Your task to perform on an android device: Go to network settings Image 0: 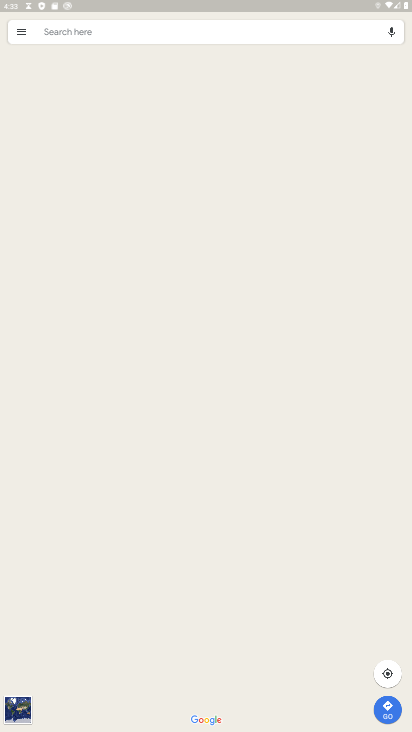
Step 0: press back button
Your task to perform on an android device: Go to network settings Image 1: 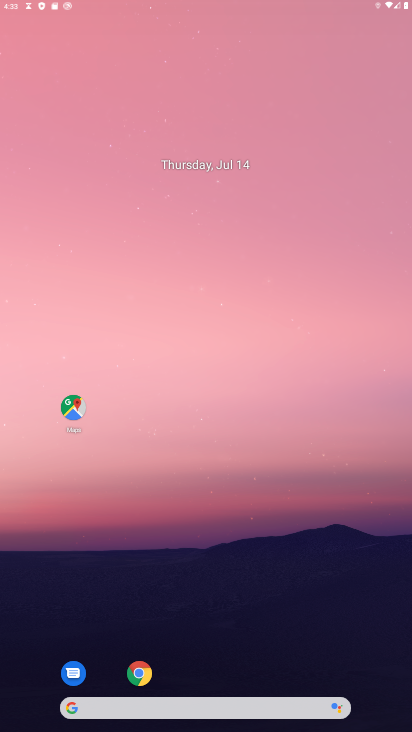
Step 1: press back button
Your task to perform on an android device: Go to network settings Image 2: 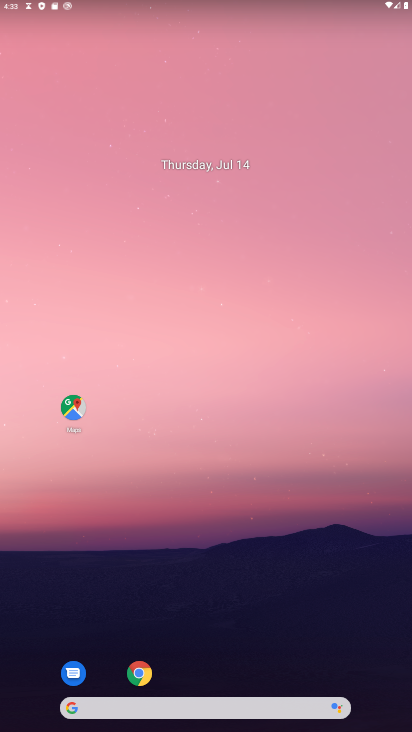
Step 2: click (234, 68)
Your task to perform on an android device: Go to network settings Image 3: 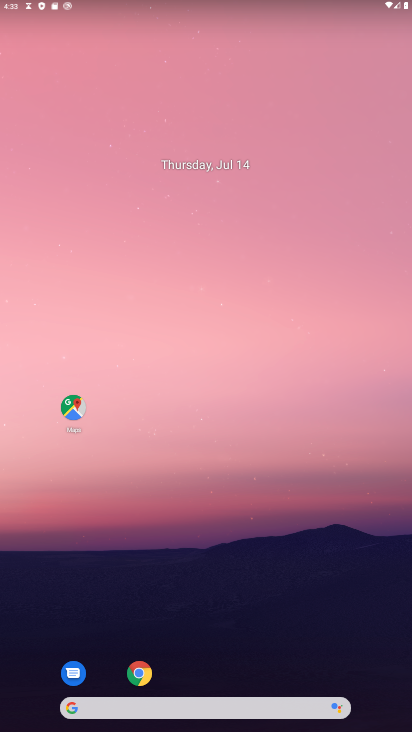
Step 3: drag from (255, 532) to (238, 48)
Your task to perform on an android device: Go to network settings Image 4: 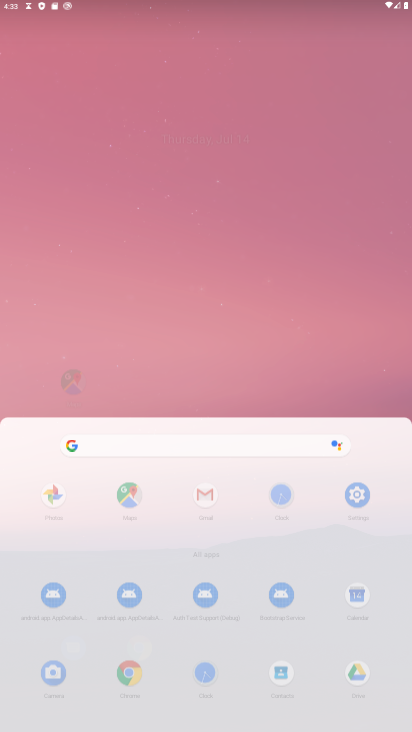
Step 4: drag from (233, 554) to (220, 84)
Your task to perform on an android device: Go to network settings Image 5: 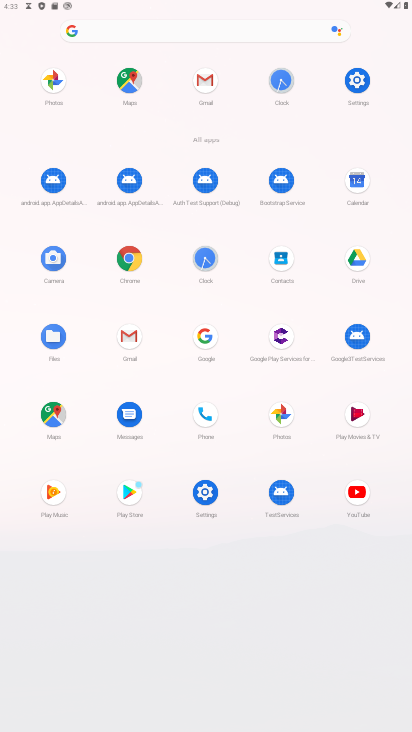
Step 5: click (359, 78)
Your task to perform on an android device: Go to network settings Image 6: 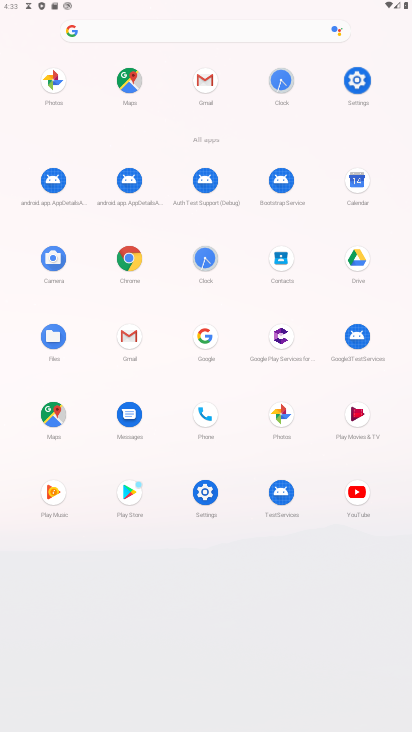
Step 6: click (361, 80)
Your task to perform on an android device: Go to network settings Image 7: 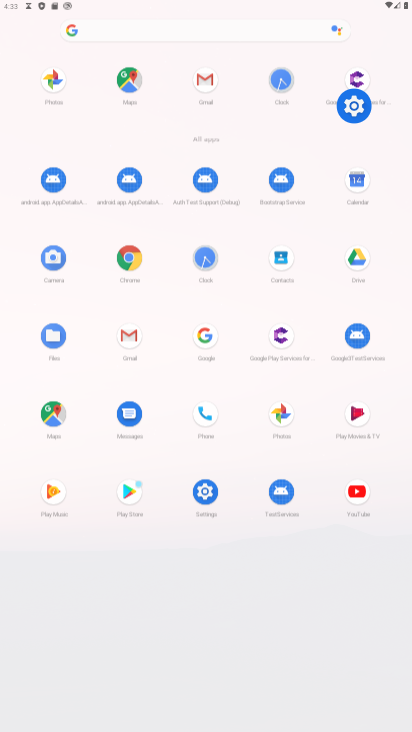
Step 7: click (361, 83)
Your task to perform on an android device: Go to network settings Image 8: 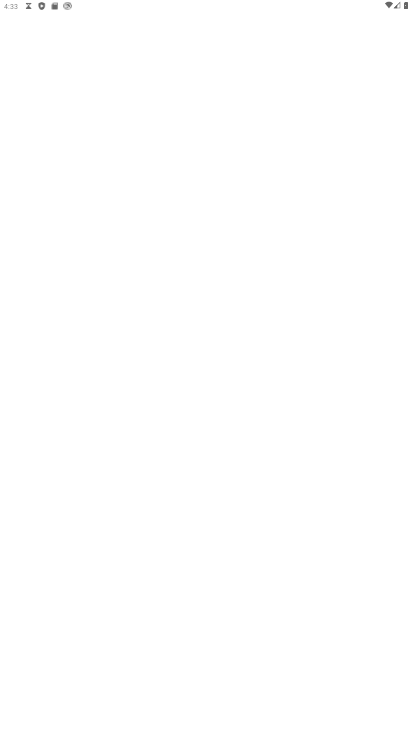
Step 8: click (361, 85)
Your task to perform on an android device: Go to network settings Image 9: 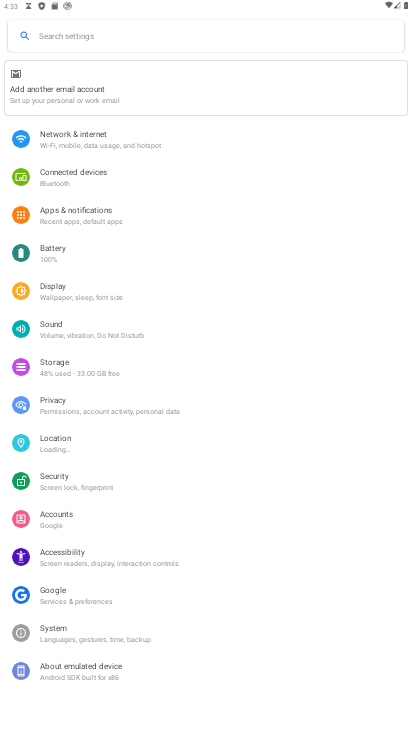
Step 9: click (72, 146)
Your task to perform on an android device: Go to network settings Image 10: 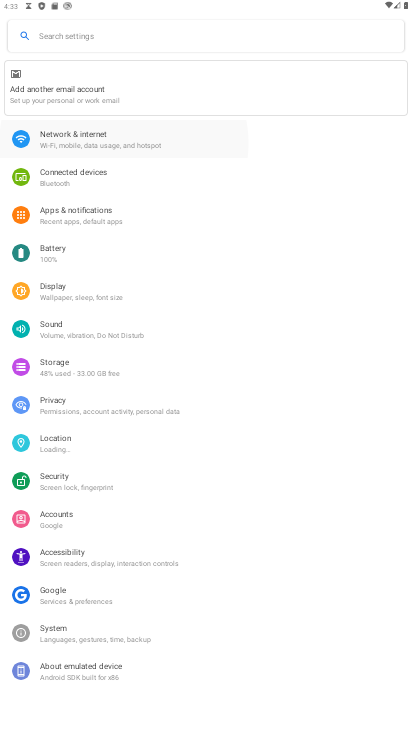
Step 10: click (72, 146)
Your task to perform on an android device: Go to network settings Image 11: 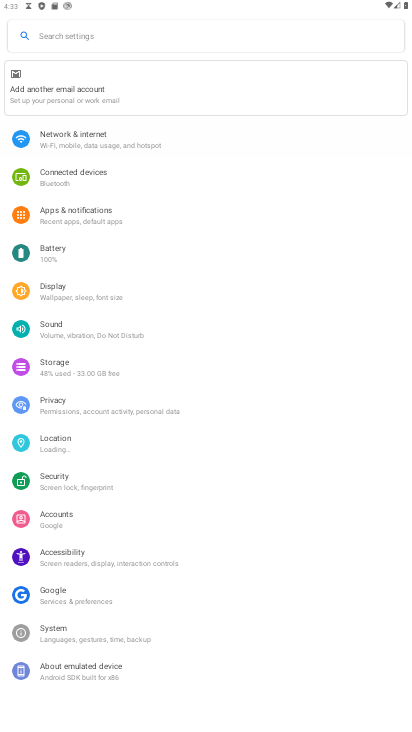
Step 11: click (73, 146)
Your task to perform on an android device: Go to network settings Image 12: 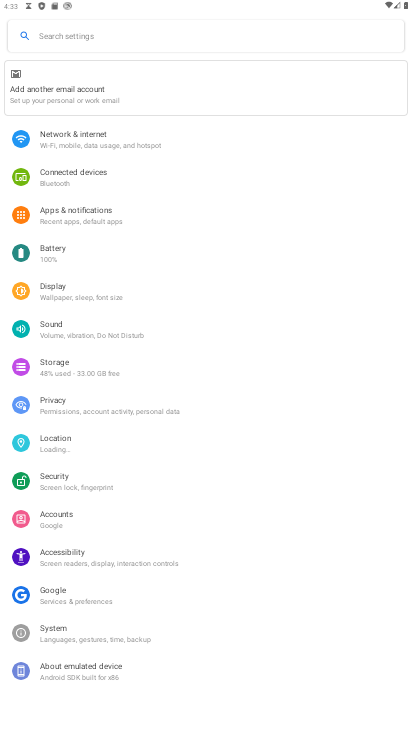
Step 12: click (76, 148)
Your task to perform on an android device: Go to network settings Image 13: 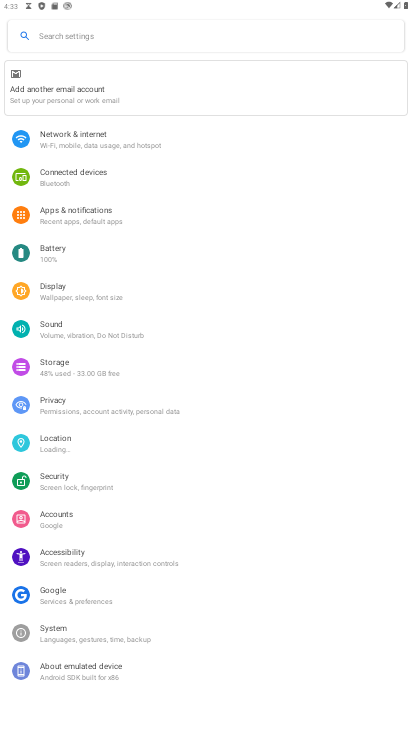
Step 13: click (77, 148)
Your task to perform on an android device: Go to network settings Image 14: 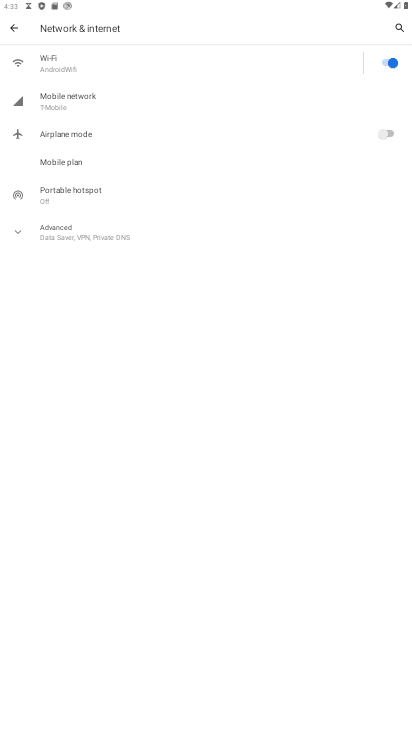
Step 14: task complete